Your task to perform on an android device: turn off priority inbox in the gmail app Image 0: 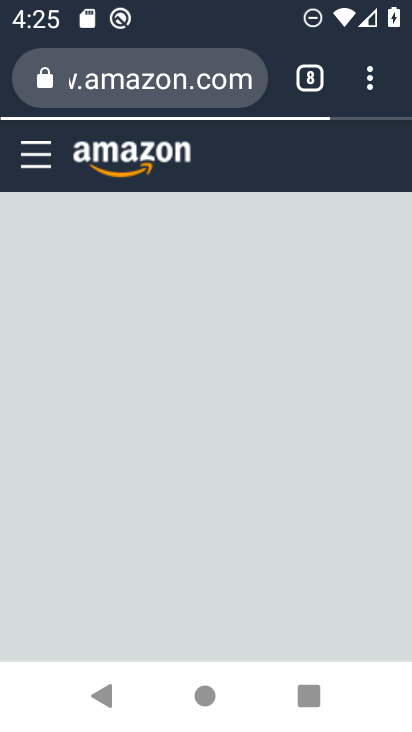
Step 0: press home button
Your task to perform on an android device: turn off priority inbox in the gmail app Image 1: 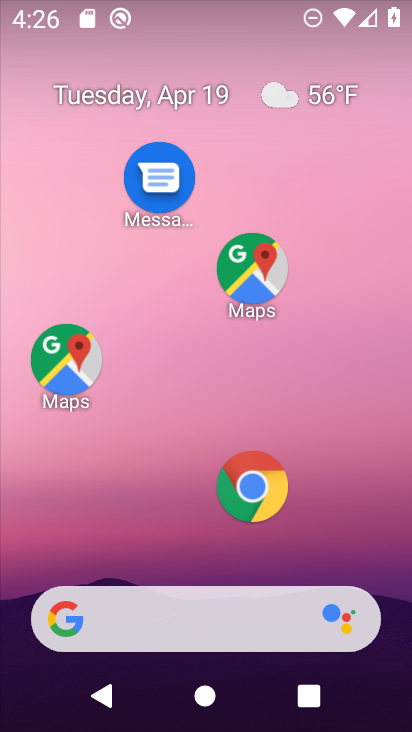
Step 1: drag from (178, 556) to (215, 167)
Your task to perform on an android device: turn off priority inbox in the gmail app Image 2: 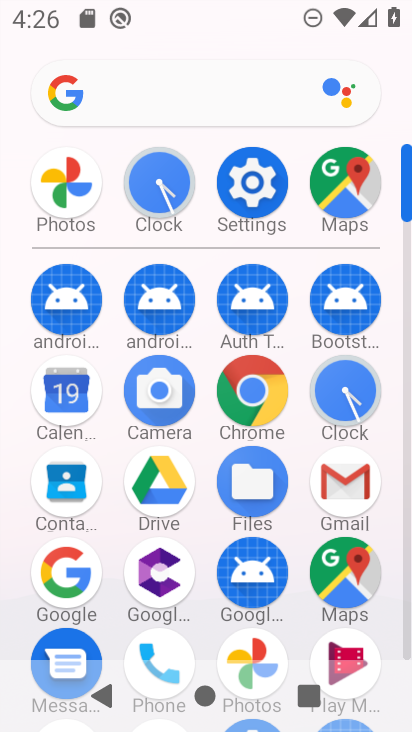
Step 2: click (342, 494)
Your task to perform on an android device: turn off priority inbox in the gmail app Image 3: 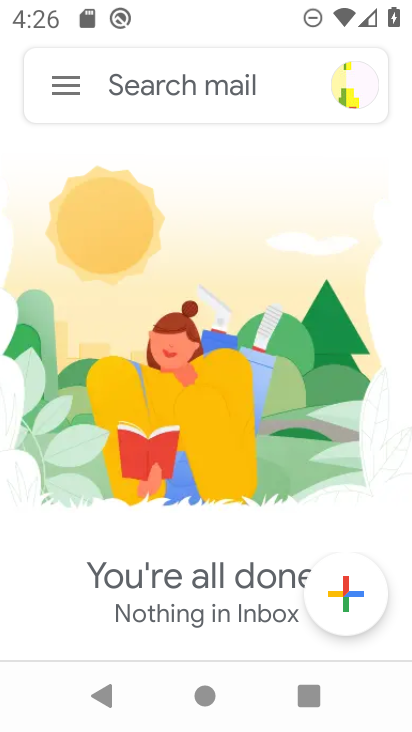
Step 3: click (50, 92)
Your task to perform on an android device: turn off priority inbox in the gmail app Image 4: 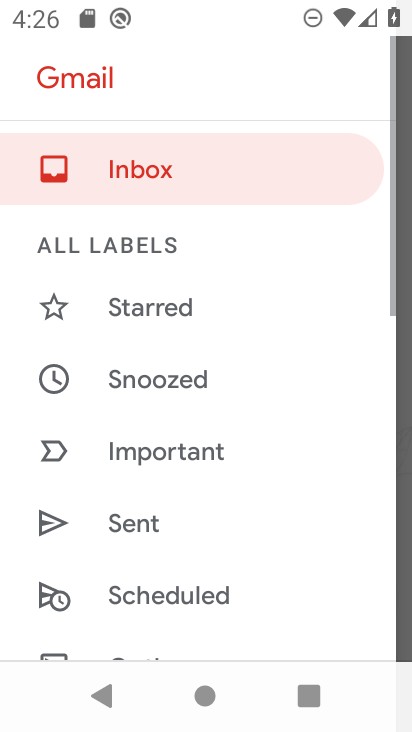
Step 4: drag from (190, 531) to (210, 200)
Your task to perform on an android device: turn off priority inbox in the gmail app Image 5: 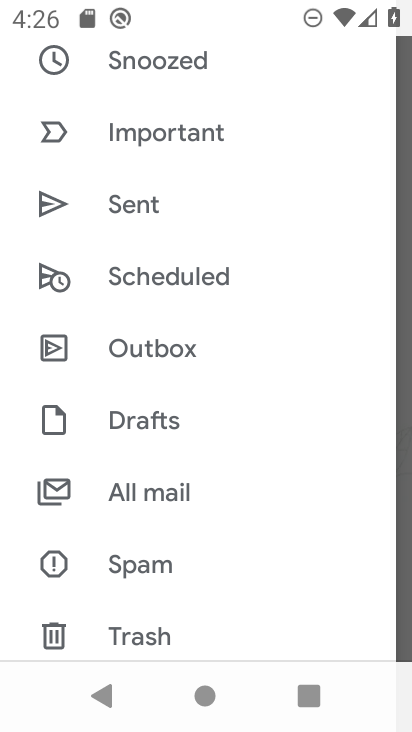
Step 5: drag from (223, 565) to (246, 254)
Your task to perform on an android device: turn off priority inbox in the gmail app Image 6: 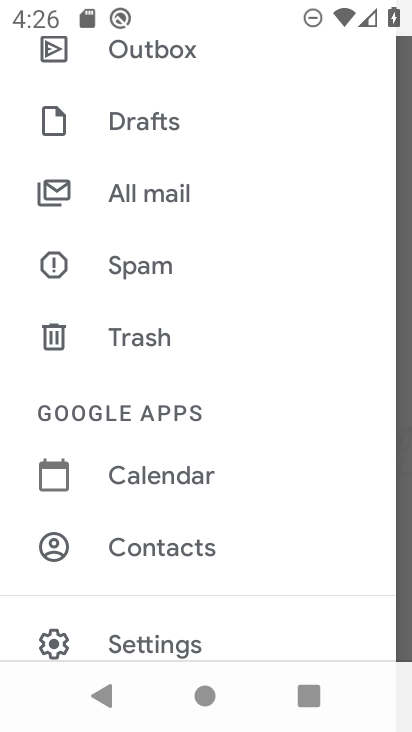
Step 6: drag from (233, 607) to (236, 340)
Your task to perform on an android device: turn off priority inbox in the gmail app Image 7: 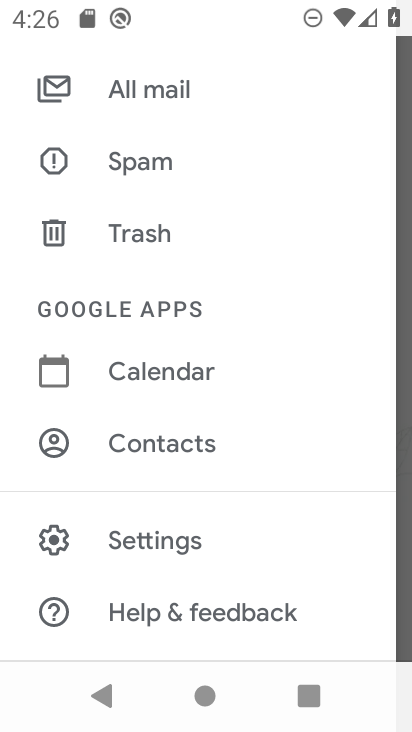
Step 7: click (161, 552)
Your task to perform on an android device: turn off priority inbox in the gmail app Image 8: 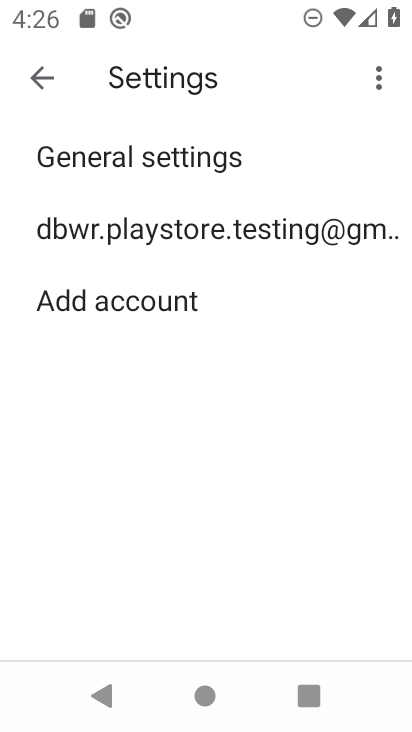
Step 8: click (211, 175)
Your task to perform on an android device: turn off priority inbox in the gmail app Image 9: 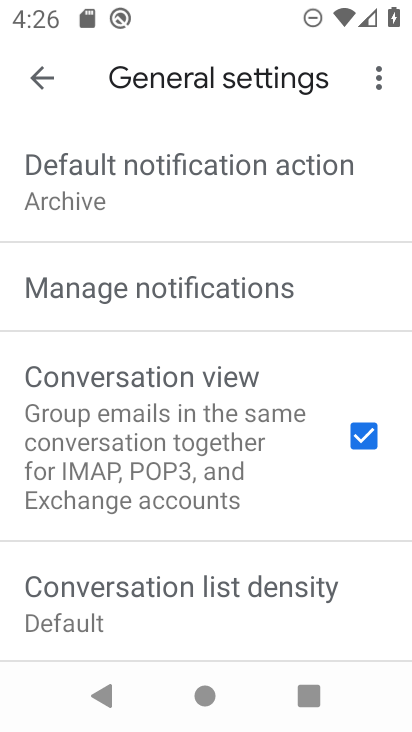
Step 9: drag from (166, 551) to (240, 269)
Your task to perform on an android device: turn off priority inbox in the gmail app Image 10: 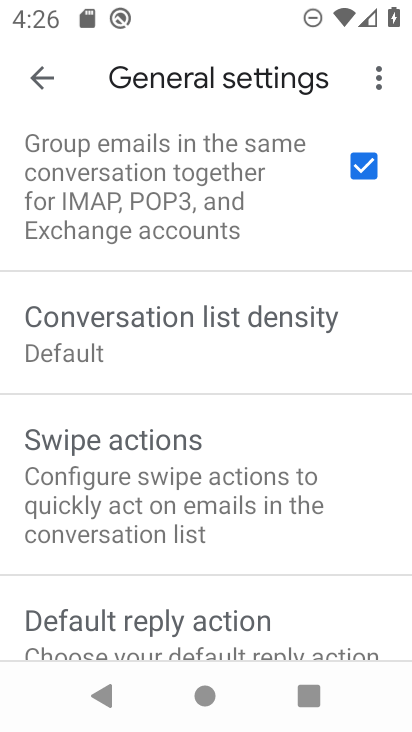
Step 10: drag from (204, 526) to (248, 285)
Your task to perform on an android device: turn off priority inbox in the gmail app Image 11: 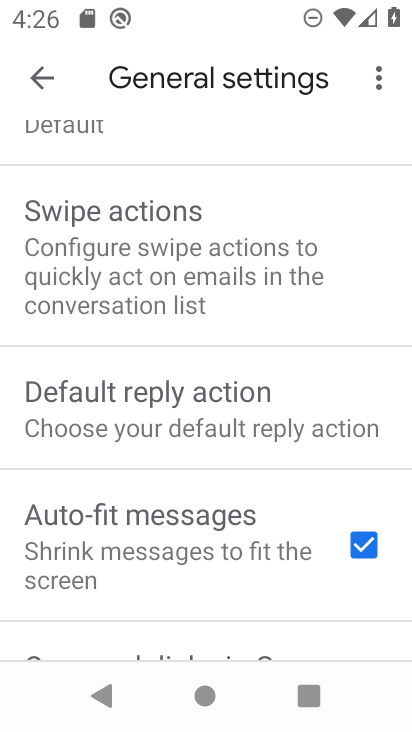
Step 11: drag from (214, 292) to (231, 613)
Your task to perform on an android device: turn off priority inbox in the gmail app Image 12: 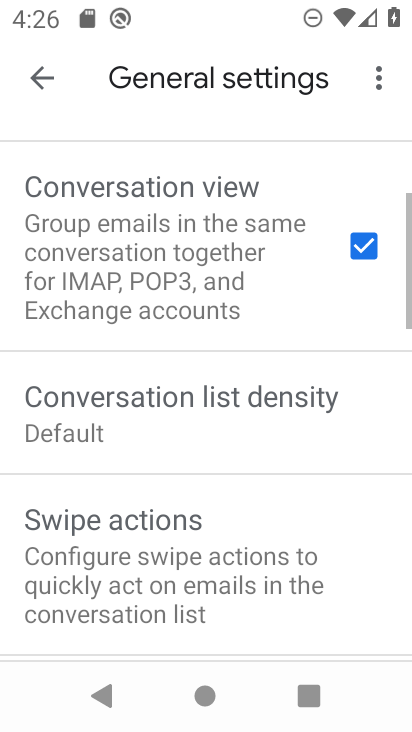
Step 12: drag from (200, 270) to (196, 620)
Your task to perform on an android device: turn off priority inbox in the gmail app Image 13: 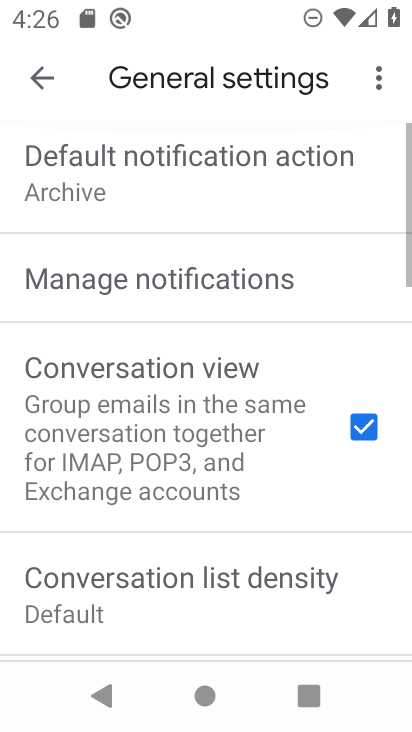
Step 13: drag from (198, 286) to (197, 572)
Your task to perform on an android device: turn off priority inbox in the gmail app Image 14: 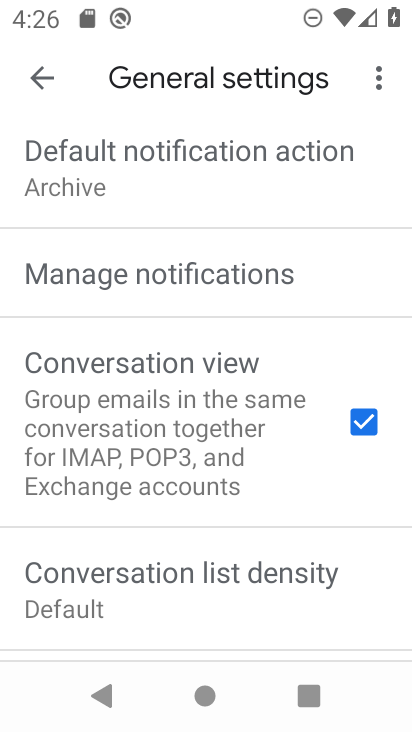
Step 14: click (60, 83)
Your task to perform on an android device: turn off priority inbox in the gmail app Image 15: 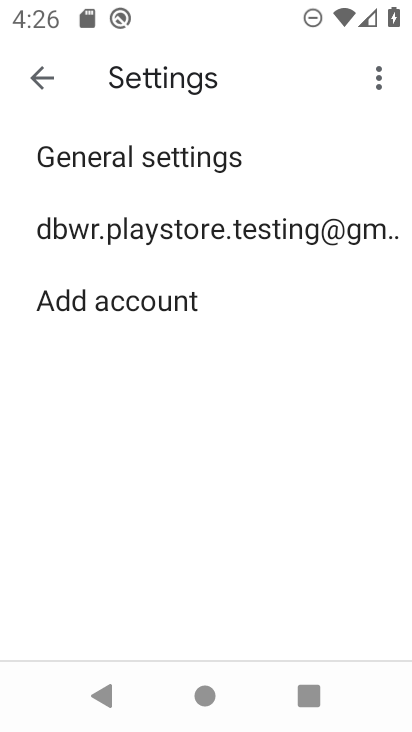
Step 15: click (165, 239)
Your task to perform on an android device: turn off priority inbox in the gmail app Image 16: 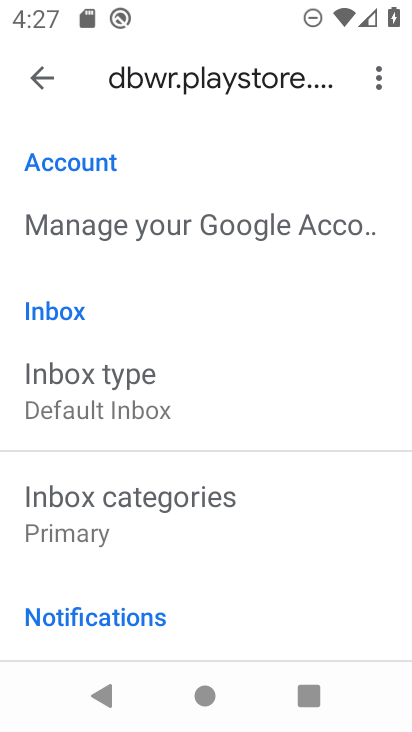
Step 16: click (96, 385)
Your task to perform on an android device: turn off priority inbox in the gmail app Image 17: 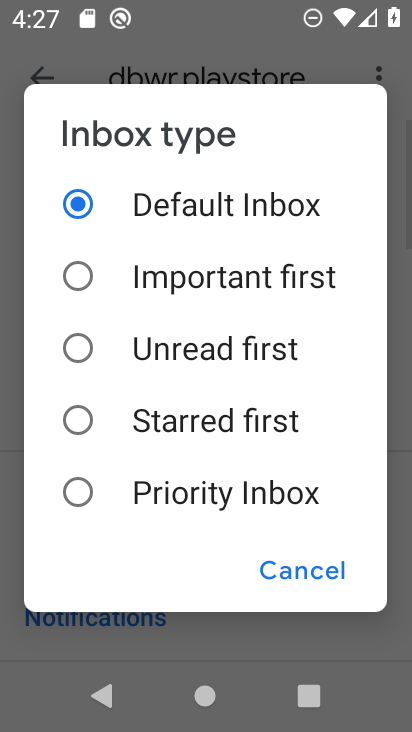
Step 17: task complete